Your task to perform on an android device: turn on javascript in the chrome app Image 0: 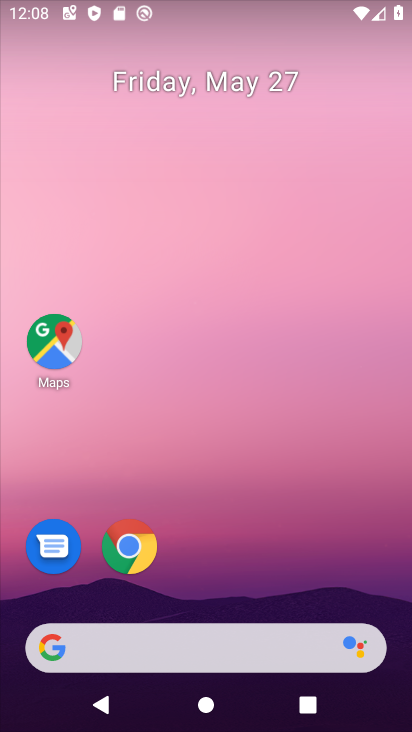
Step 0: click (133, 547)
Your task to perform on an android device: turn on javascript in the chrome app Image 1: 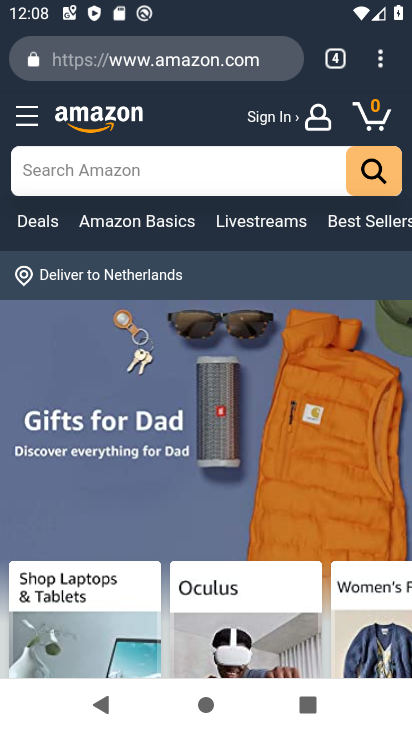
Step 1: click (382, 58)
Your task to perform on an android device: turn on javascript in the chrome app Image 2: 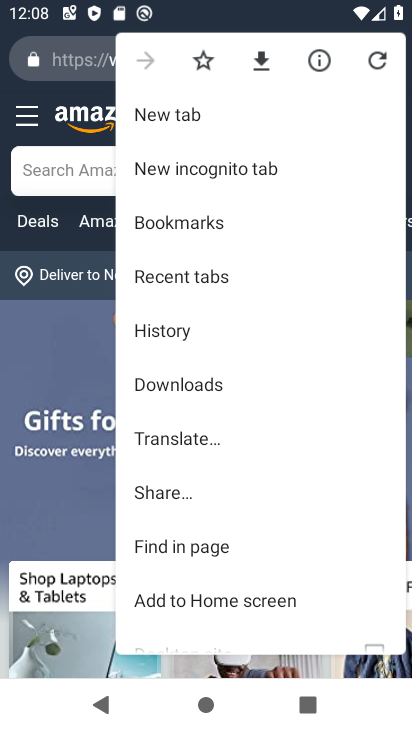
Step 2: drag from (234, 486) to (162, 152)
Your task to perform on an android device: turn on javascript in the chrome app Image 3: 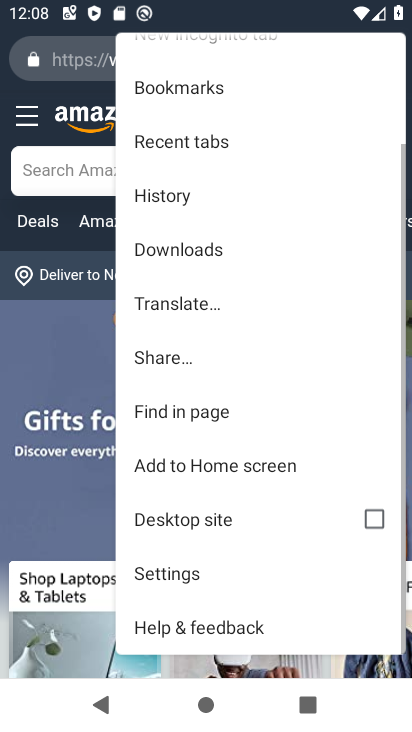
Step 3: click (182, 573)
Your task to perform on an android device: turn on javascript in the chrome app Image 4: 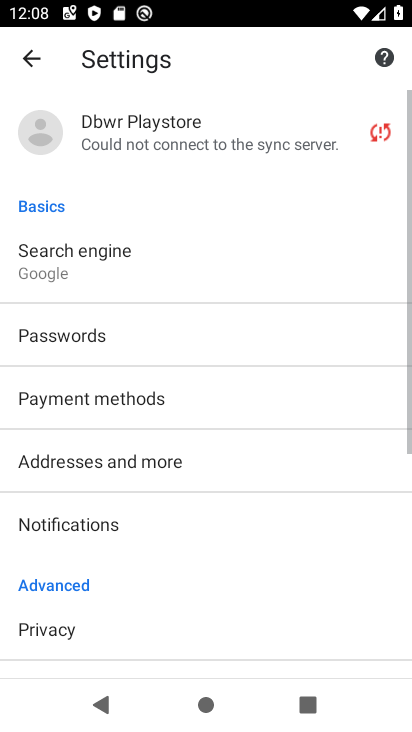
Step 4: drag from (183, 551) to (148, 191)
Your task to perform on an android device: turn on javascript in the chrome app Image 5: 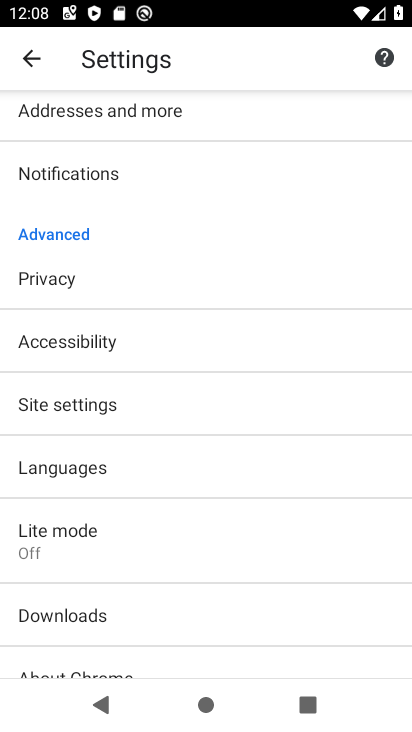
Step 5: click (81, 403)
Your task to perform on an android device: turn on javascript in the chrome app Image 6: 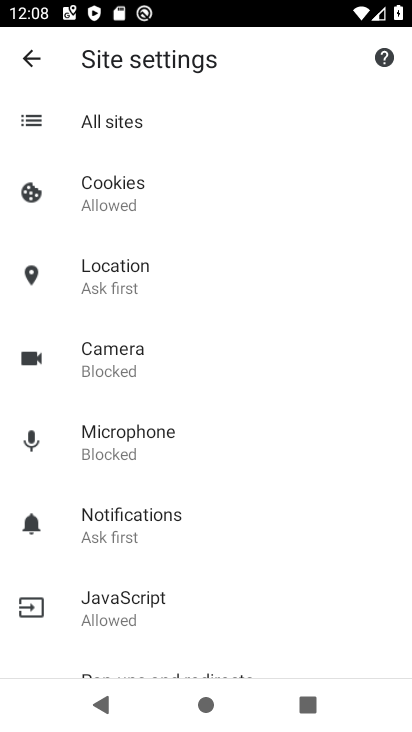
Step 6: drag from (215, 515) to (197, 206)
Your task to perform on an android device: turn on javascript in the chrome app Image 7: 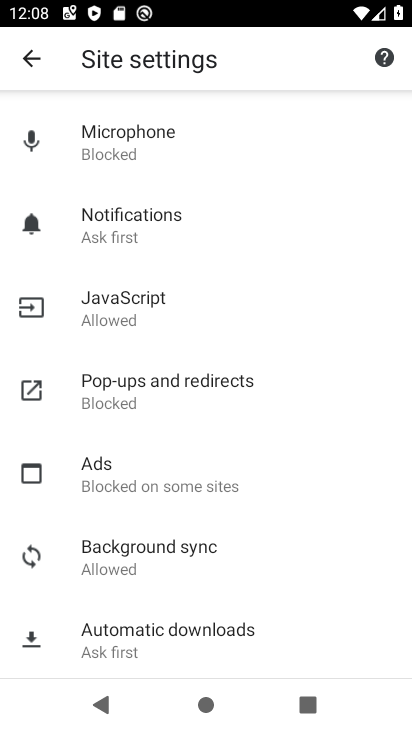
Step 7: click (120, 291)
Your task to perform on an android device: turn on javascript in the chrome app Image 8: 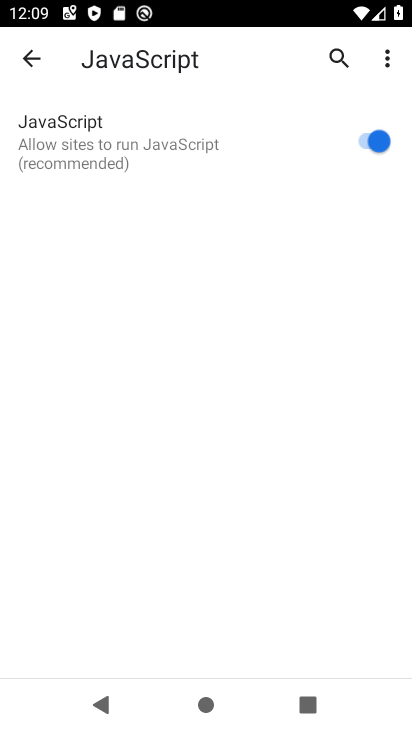
Step 8: task complete